Your task to perform on an android device: Add "dell xps" to the cart on newegg, then select checkout. Image 0: 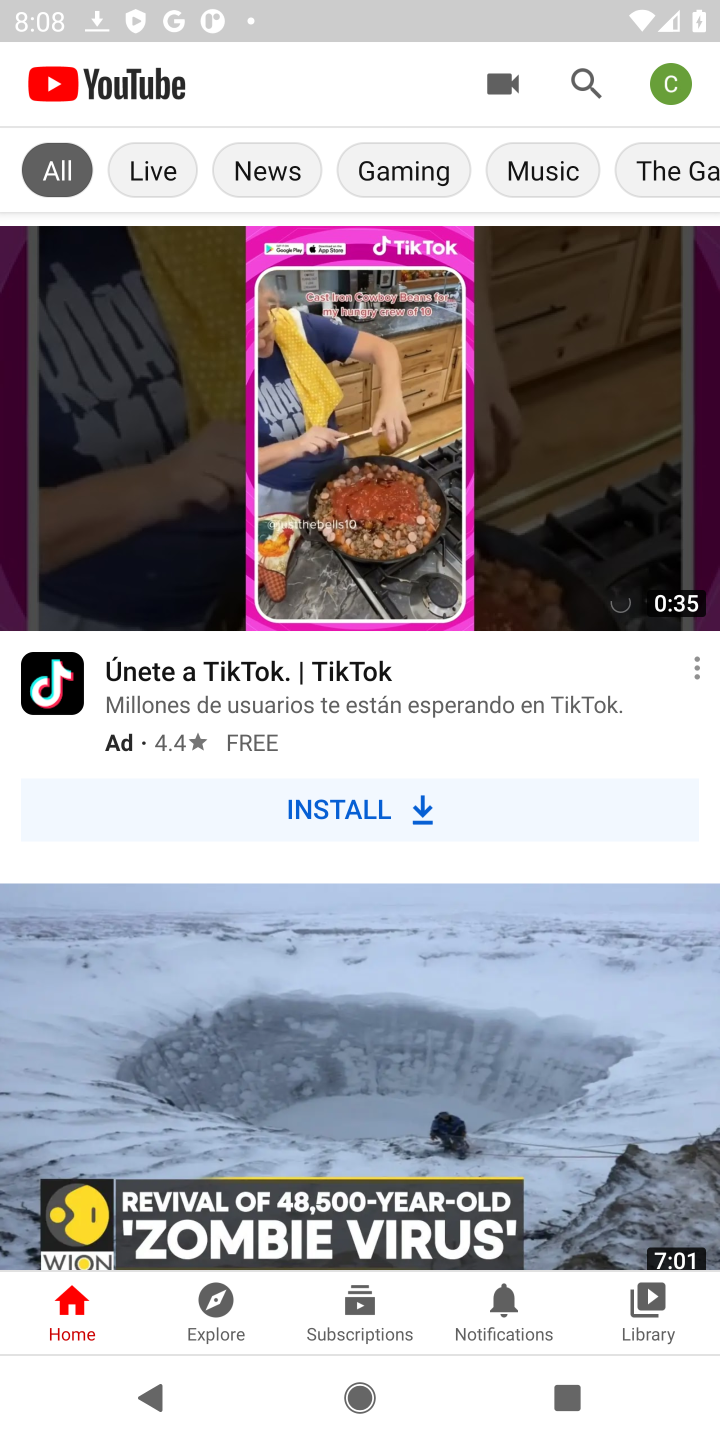
Step 0: press home button
Your task to perform on an android device: Add "dell xps" to the cart on newegg, then select checkout. Image 1: 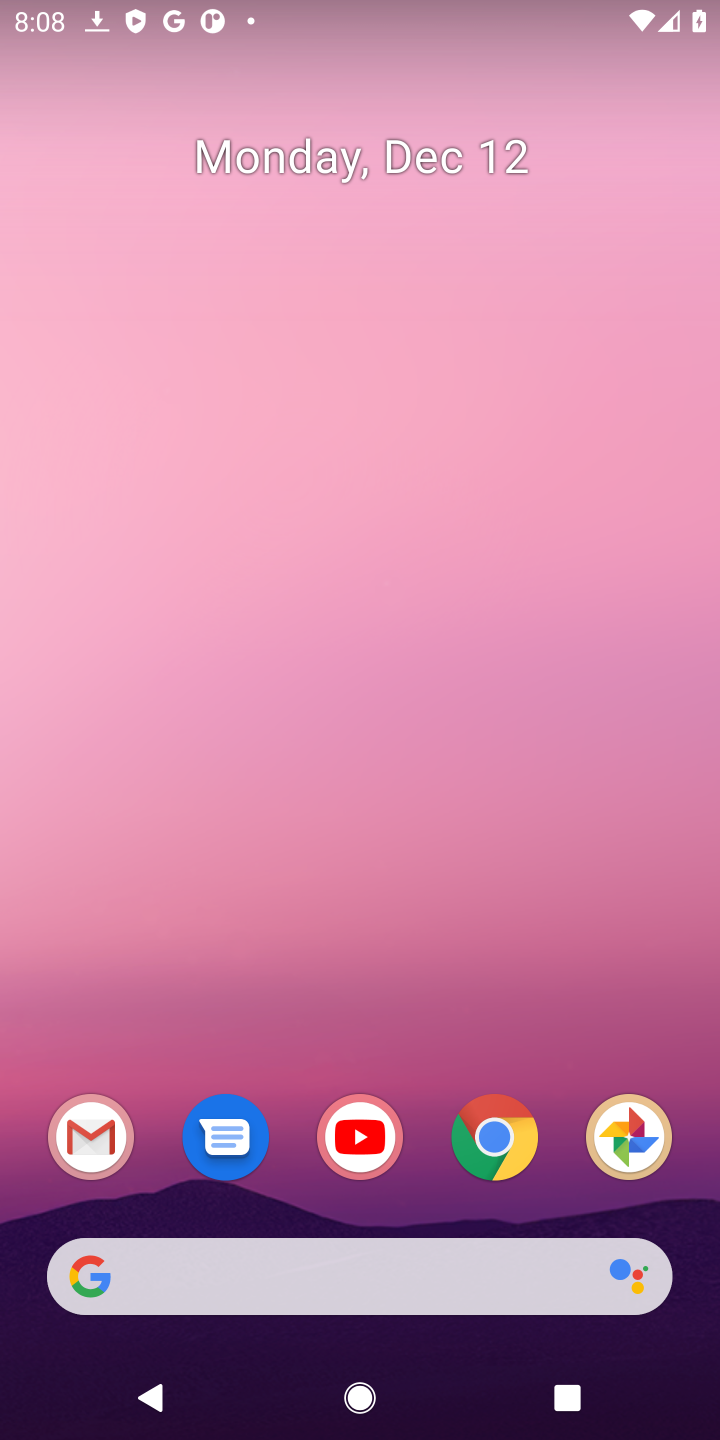
Step 1: click (509, 1149)
Your task to perform on an android device: Add "dell xps" to the cart on newegg, then select checkout. Image 2: 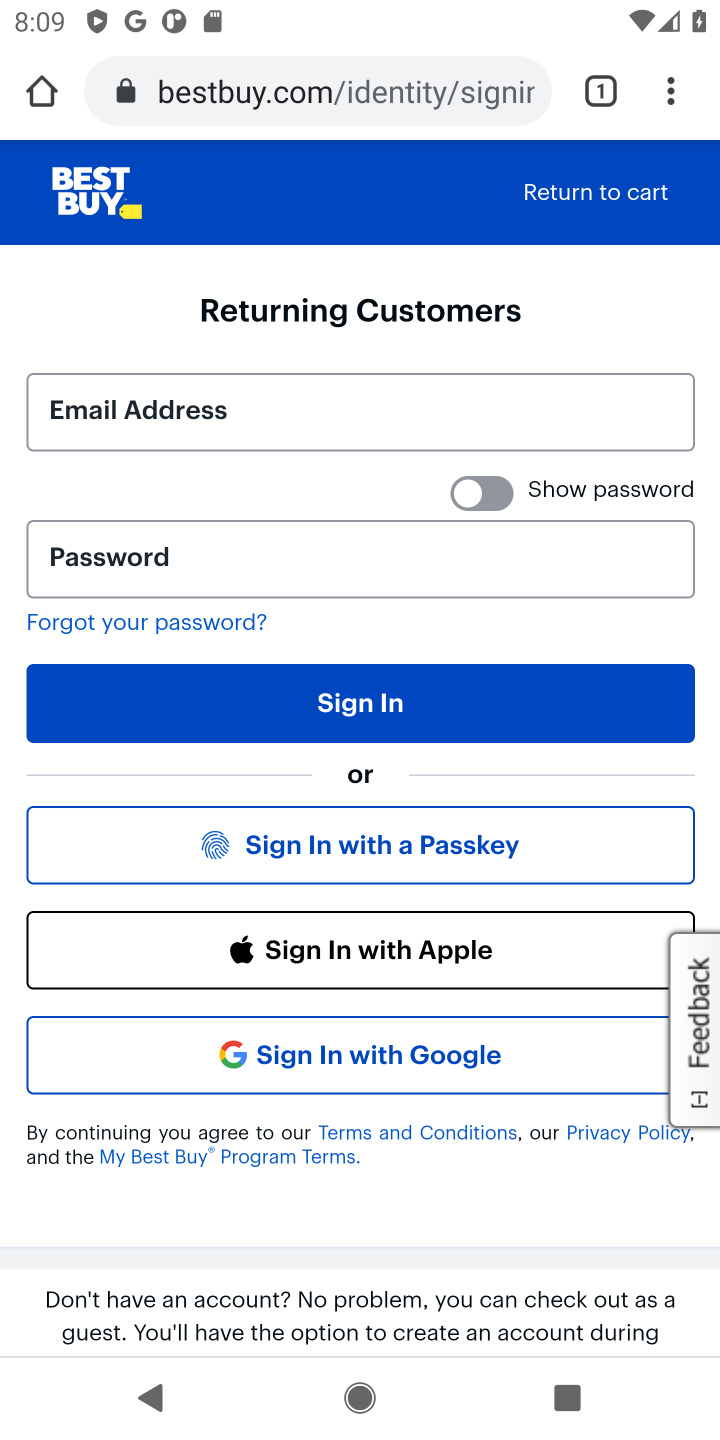
Step 2: click (386, 84)
Your task to perform on an android device: Add "dell xps" to the cart on newegg, then select checkout. Image 3: 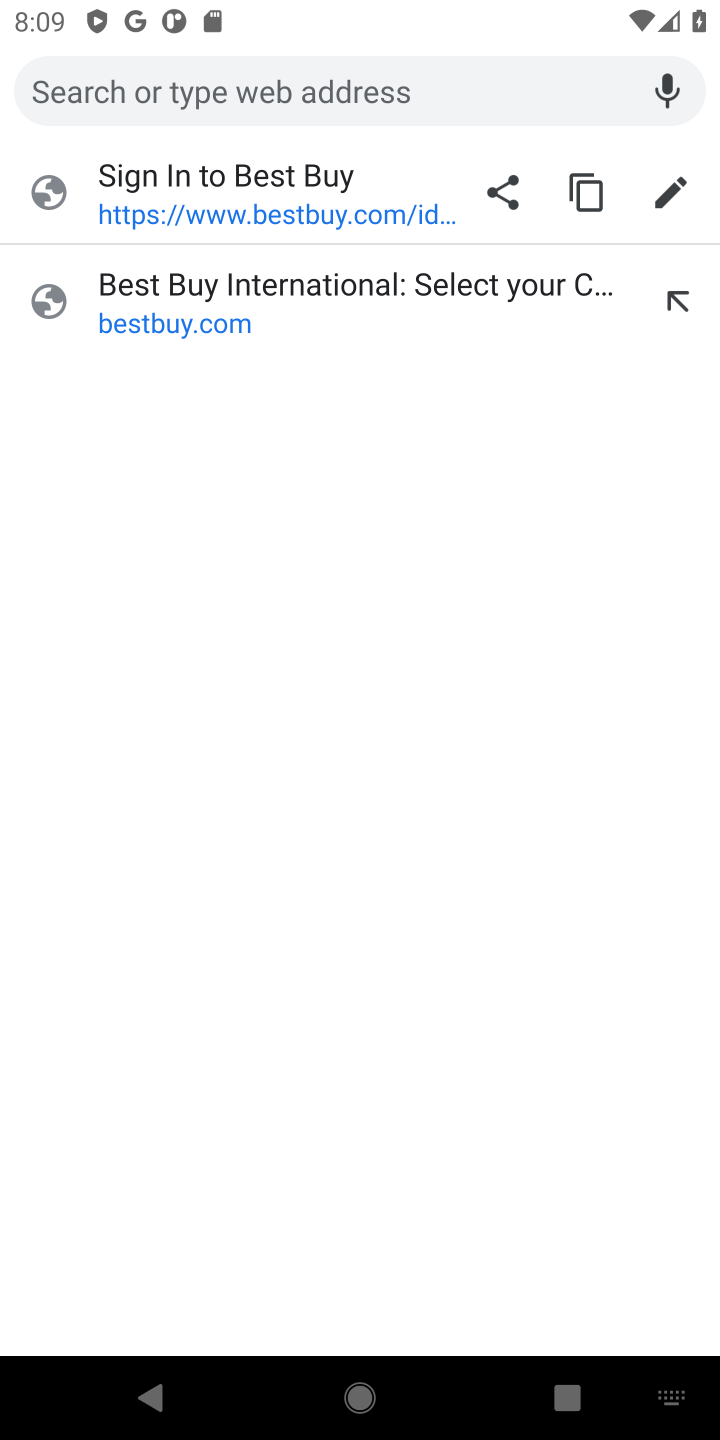
Step 3: type "newegg"
Your task to perform on an android device: Add "dell xps" to the cart on newegg, then select checkout. Image 4: 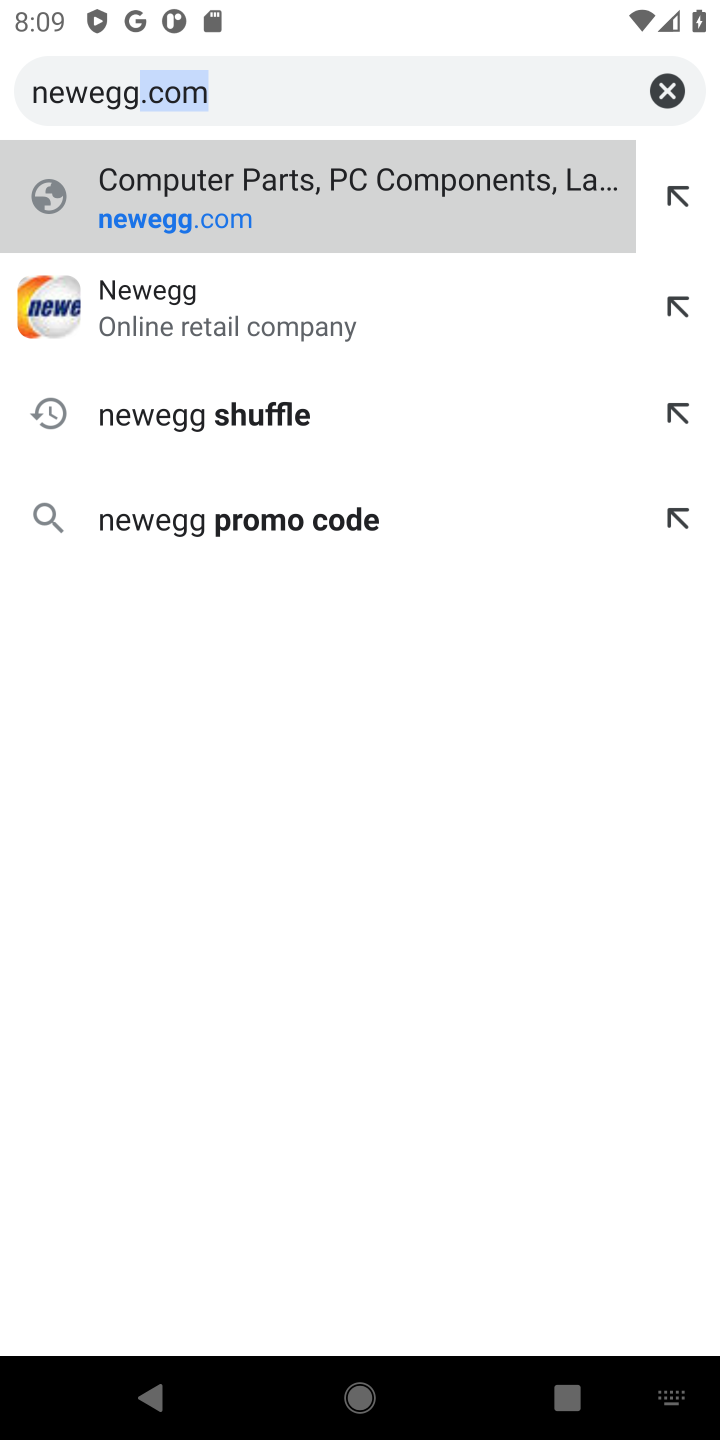
Step 4: click (223, 208)
Your task to perform on an android device: Add "dell xps" to the cart on newegg, then select checkout. Image 5: 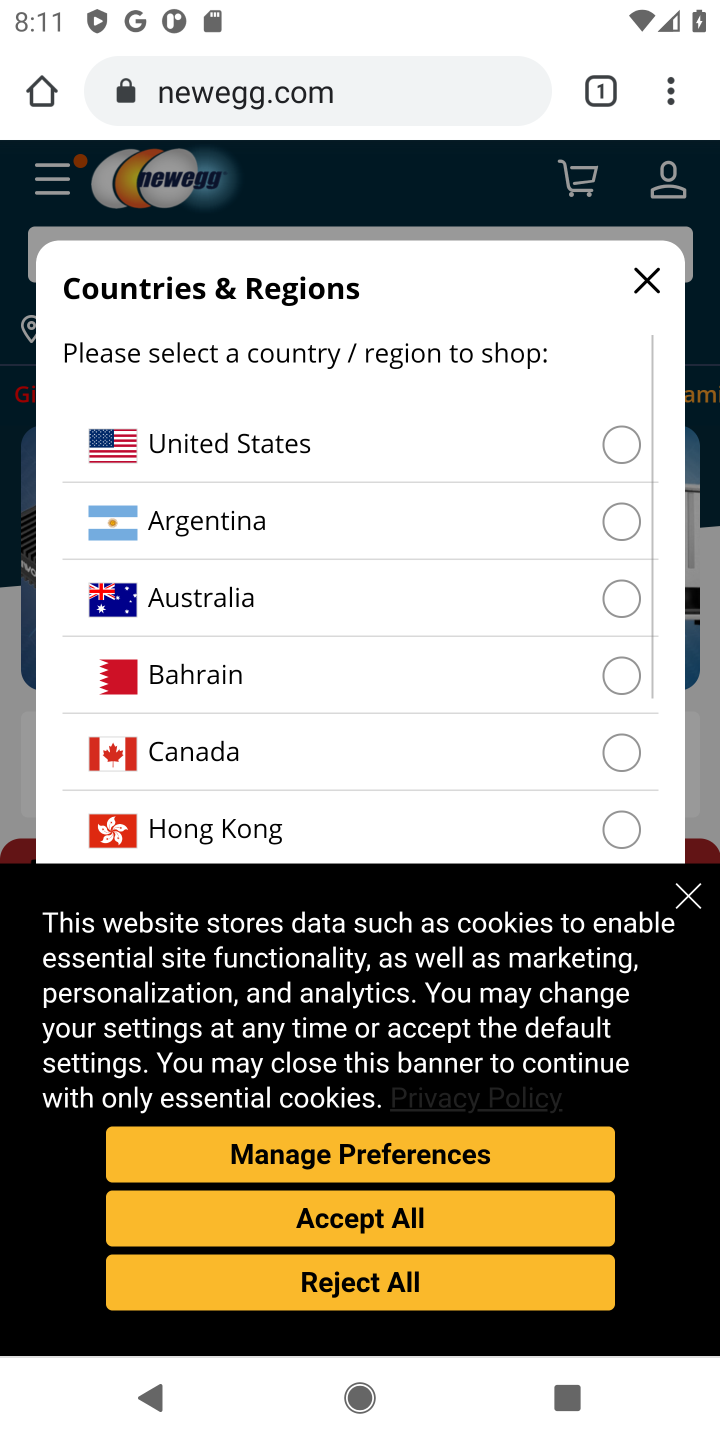
Step 5: click (416, 1220)
Your task to perform on an android device: Add "dell xps" to the cart on newegg, then select checkout. Image 6: 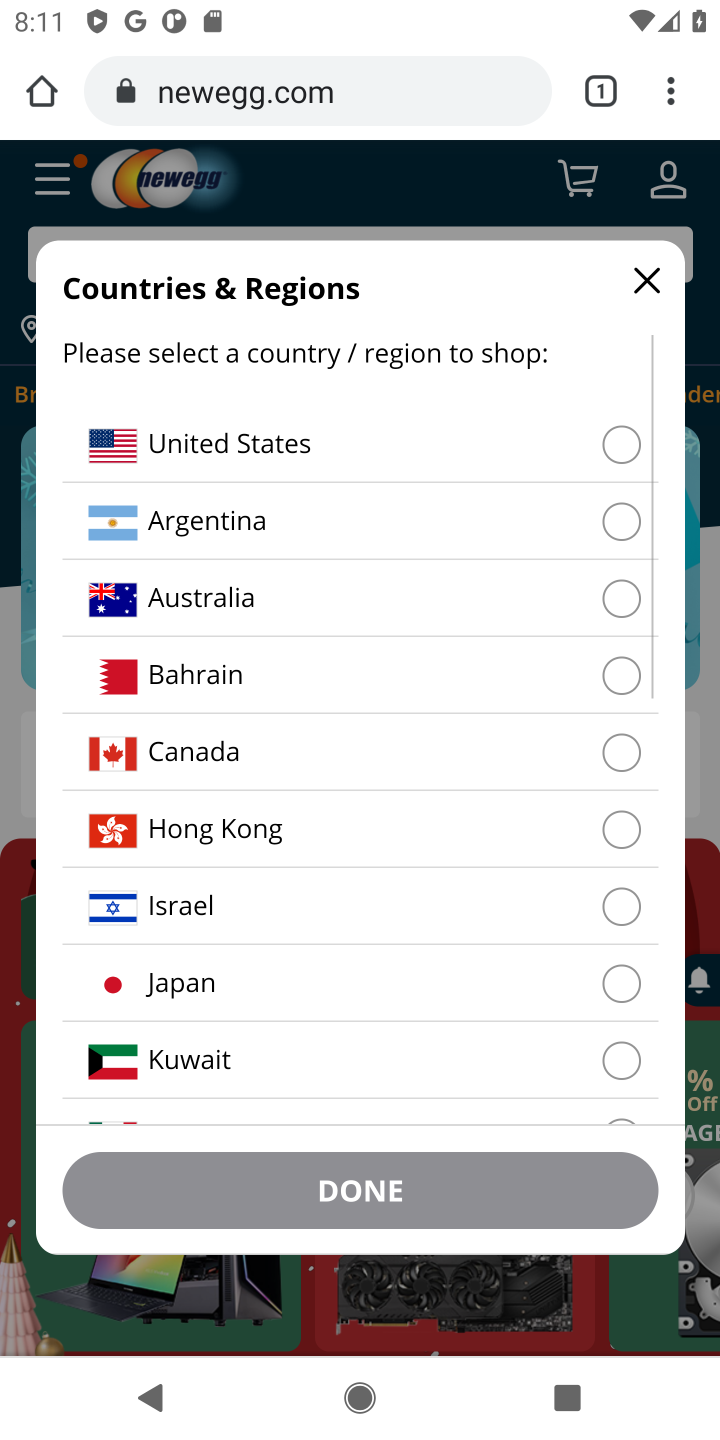
Step 6: click (429, 448)
Your task to perform on an android device: Add "dell xps" to the cart on newegg, then select checkout. Image 7: 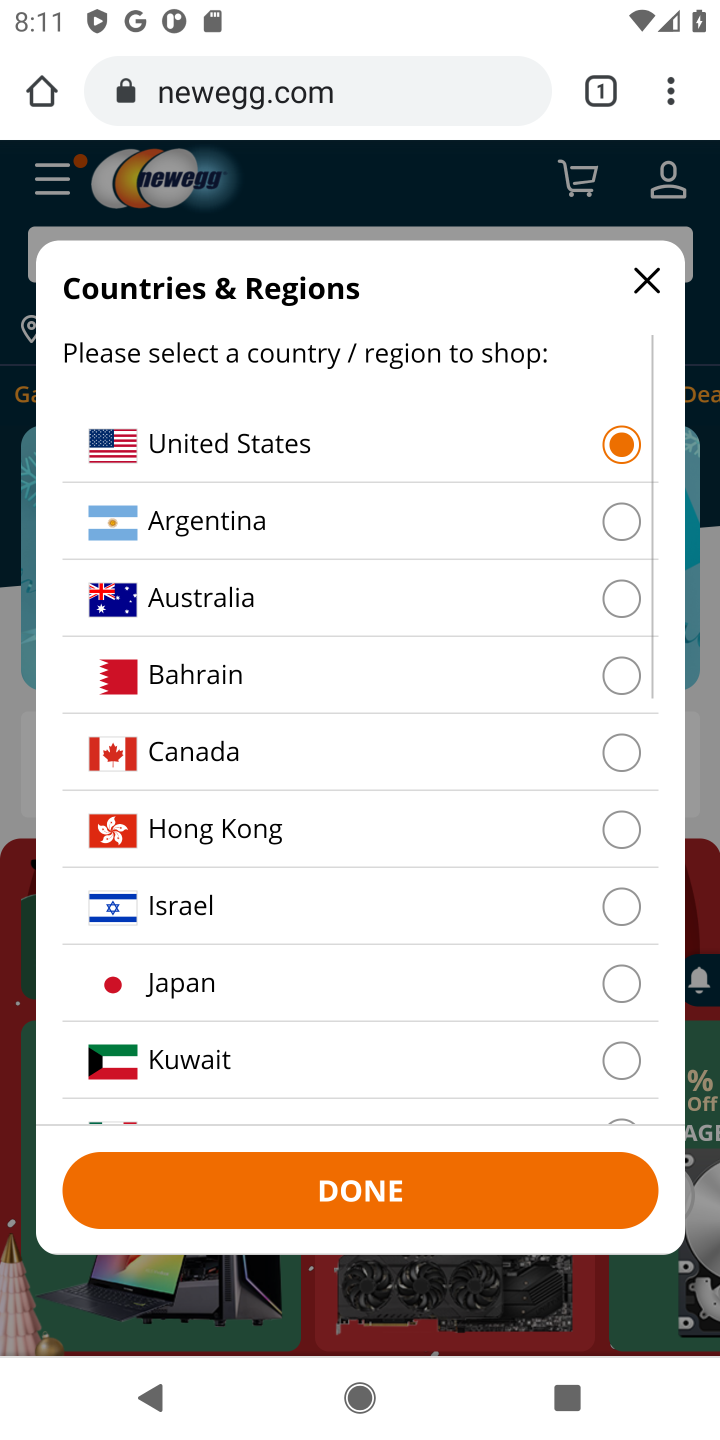
Step 7: click (464, 1205)
Your task to perform on an android device: Add "dell xps" to the cart on newegg, then select checkout. Image 8: 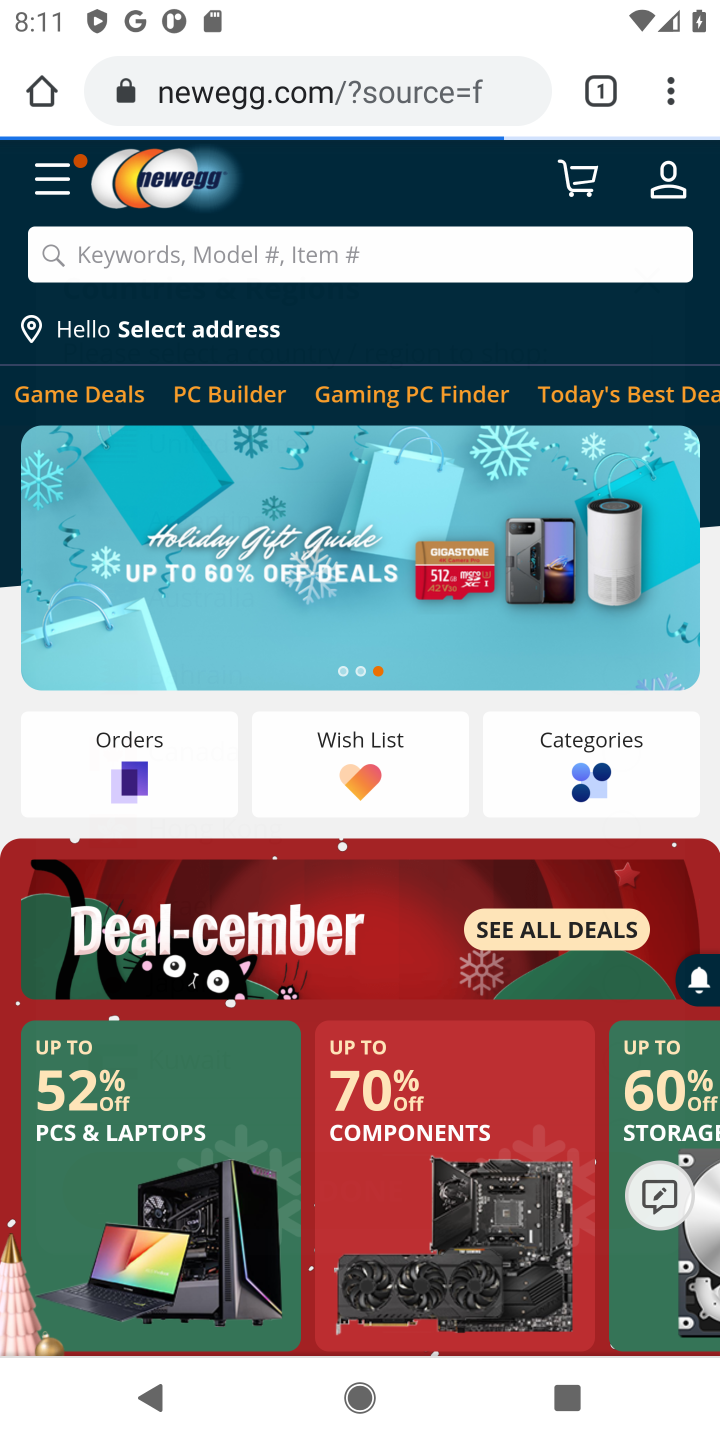
Step 8: click (530, 246)
Your task to perform on an android device: Add "dell xps" to the cart on newegg, then select checkout. Image 9: 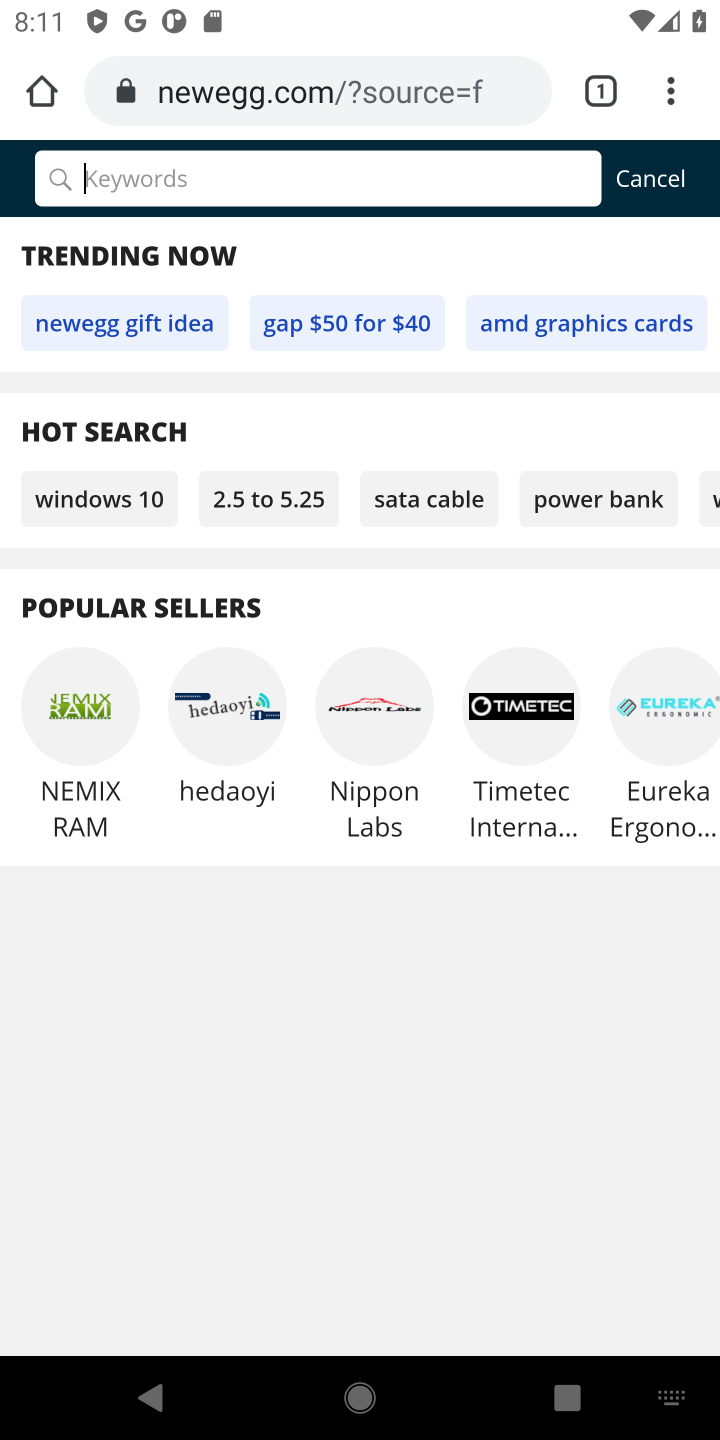
Step 9: type "dell xps"
Your task to perform on an android device: Add "dell xps" to the cart on newegg, then select checkout. Image 10: 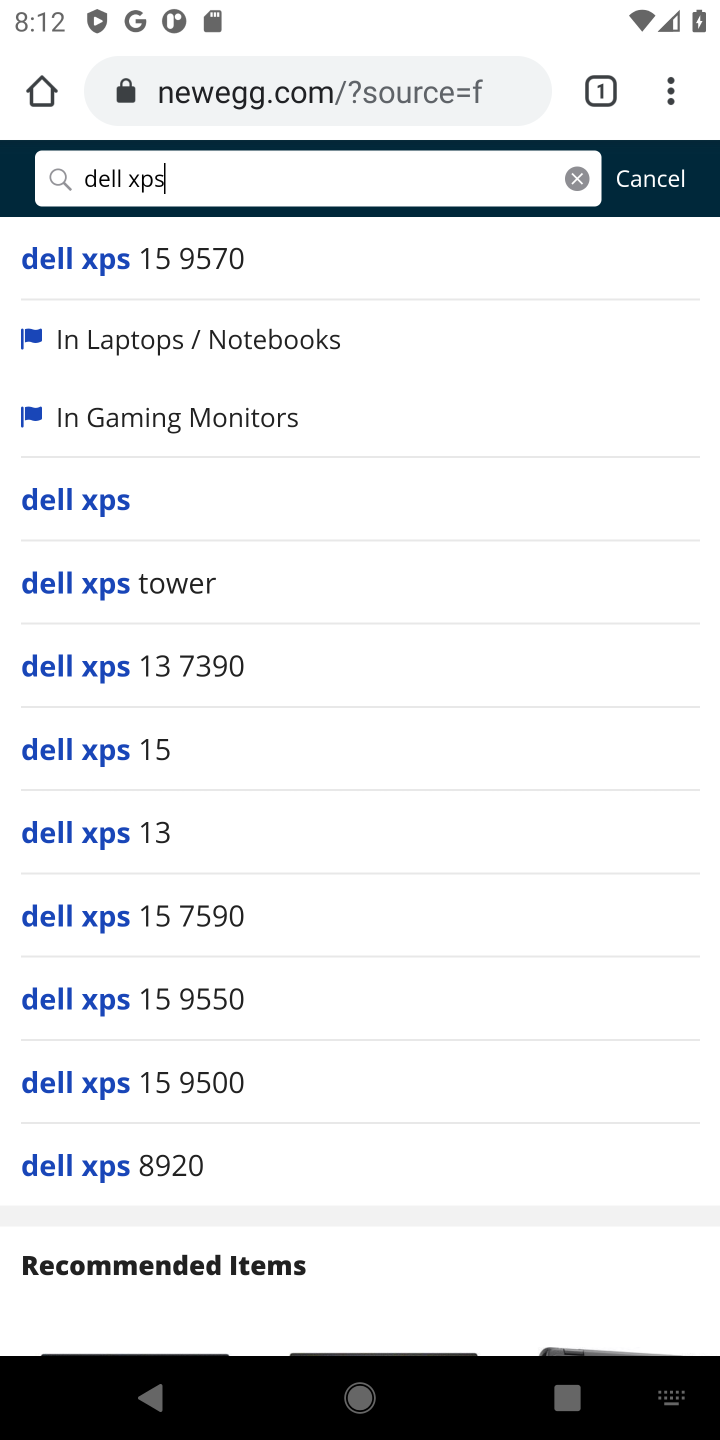
Step 10: click (151, 256)
Your task to perform on an android device: Add "dell xps" to the cart on newegg, then select checkout. Image 11: 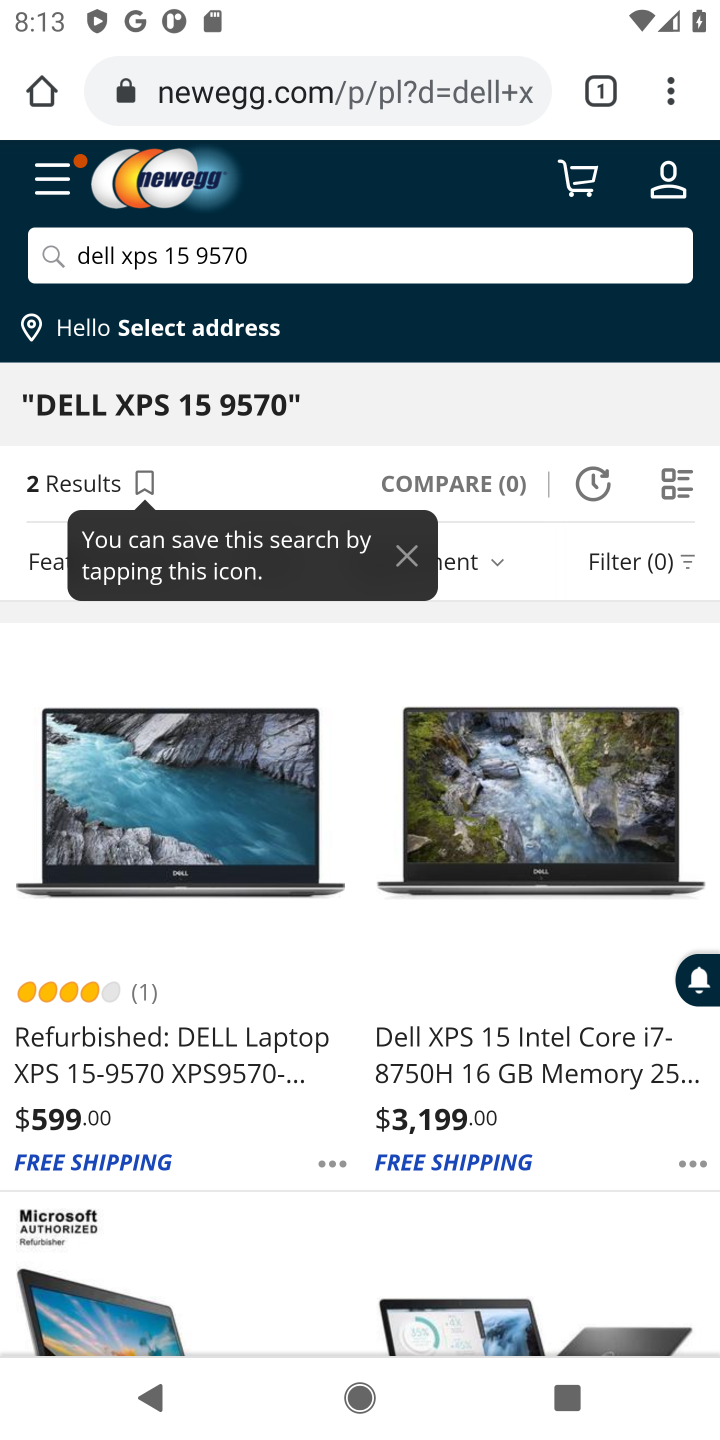
Step 11: click (193, 856)
Your task to perform on an android device: Add "dell xps" to the cart on newegg, then select checkout. Image 12: 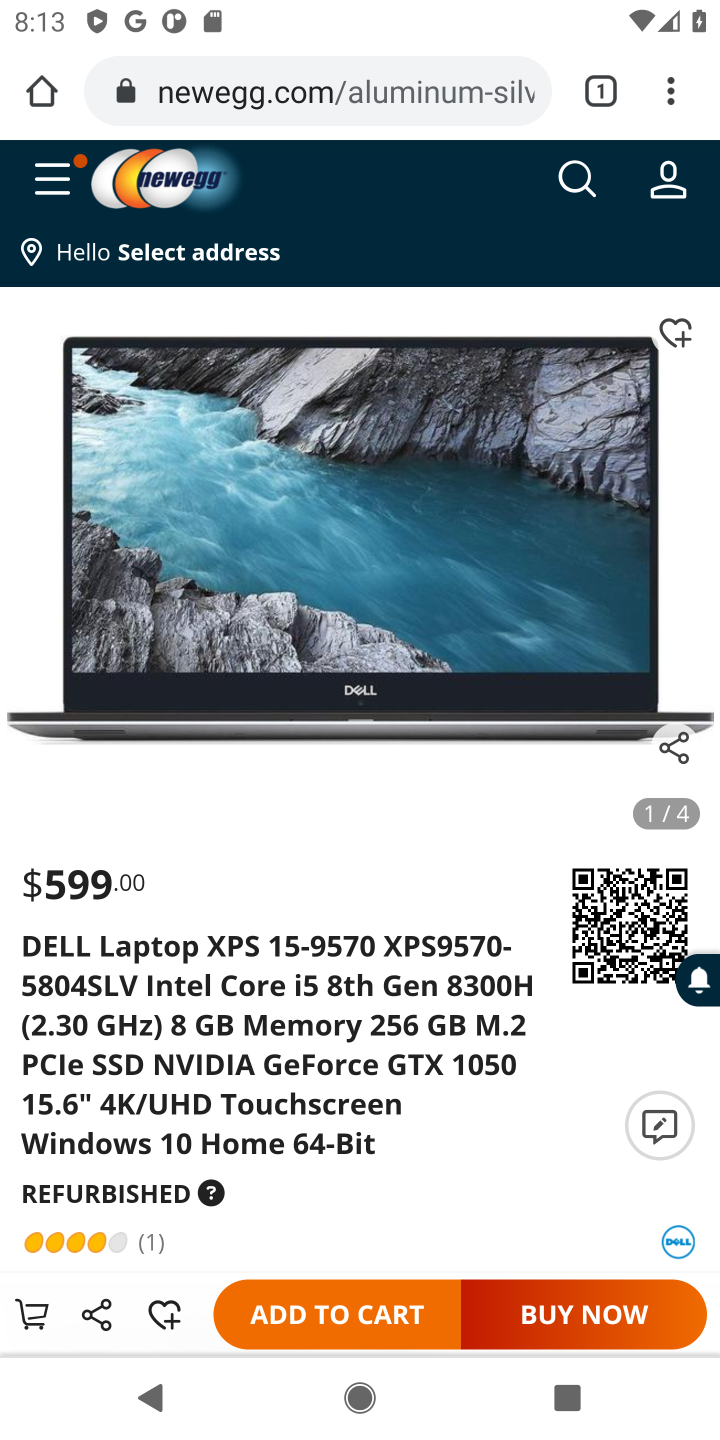
Step 12: click (389, 1315)
Your task to perform on an android device: Add "dell xps" to the cart on newegg, then select checkout. Image 13: 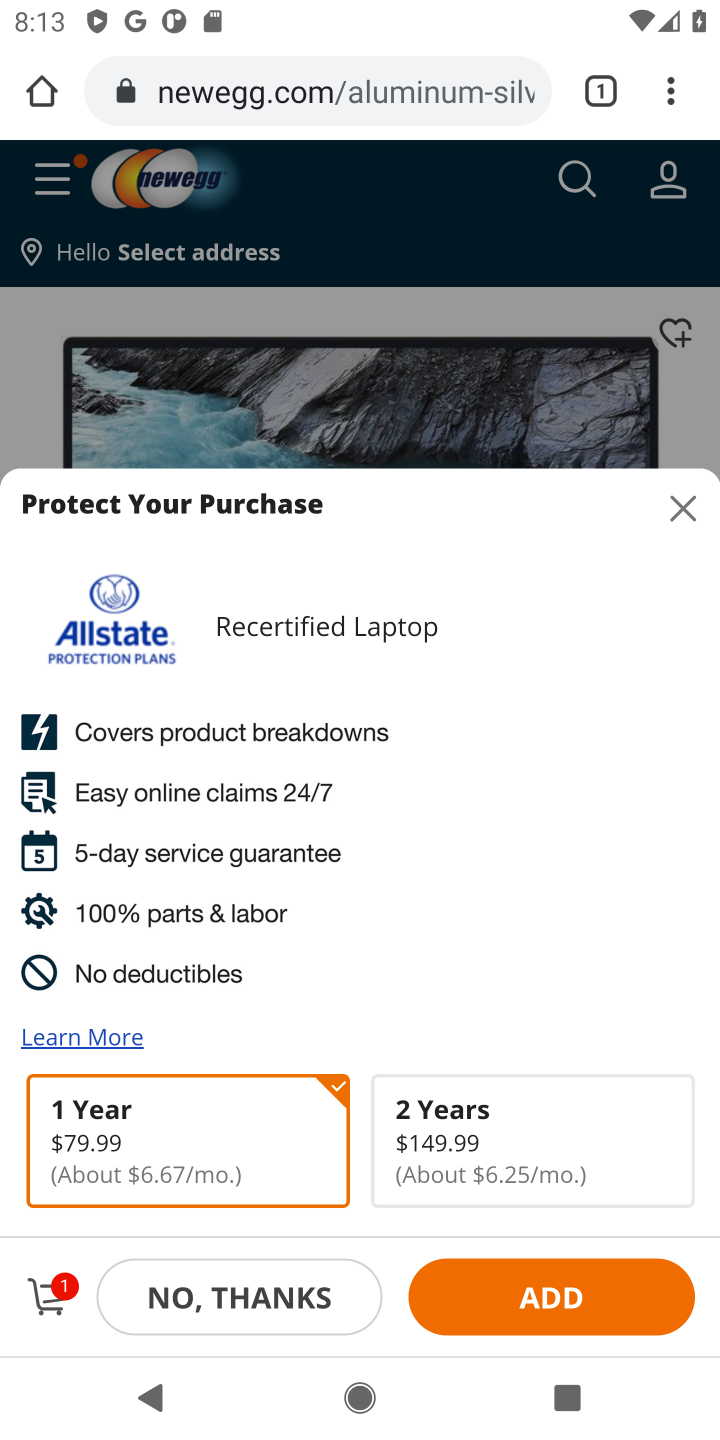
Step 13: click (185, 1300)
Your task to perform on an android device: Add "dell xps" to the cart on newegg, then select checkout. Image 14: 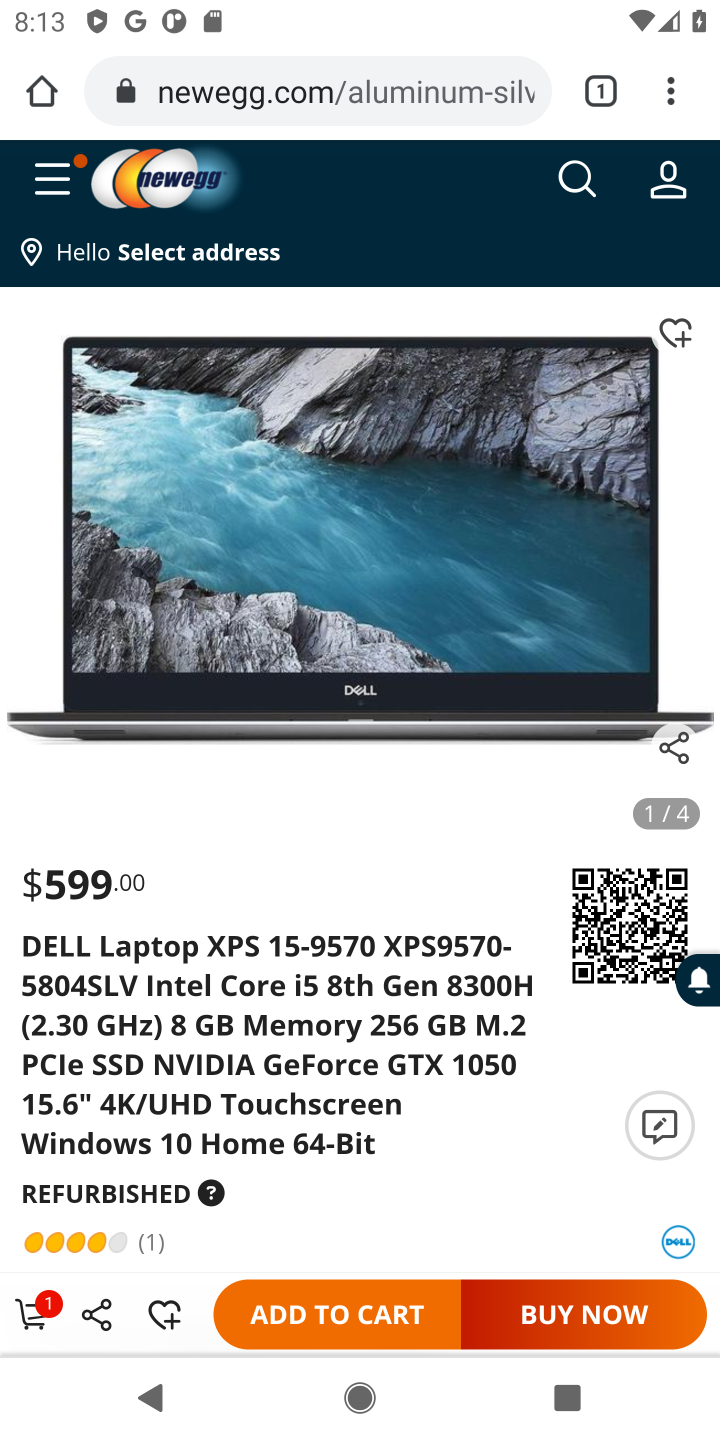
Step 14: click (35, 1316)
Your task to perform on an android device: Add "dell xps" to the cart on newegg, then select checkout. Image 15: 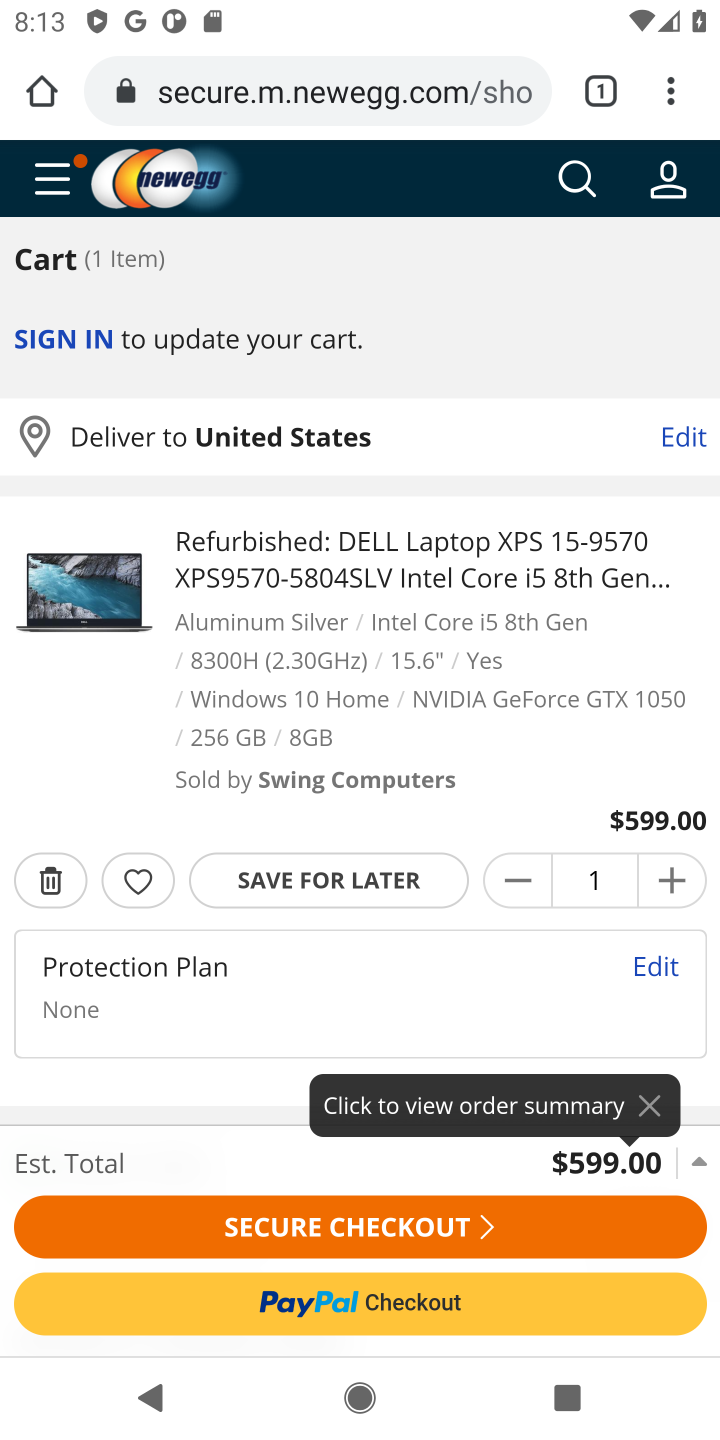
Step 15: click (373, 1230)
Your task to perform on an android device: Add "dell xps" to the cart on newegg, then select checkout. Image 16: 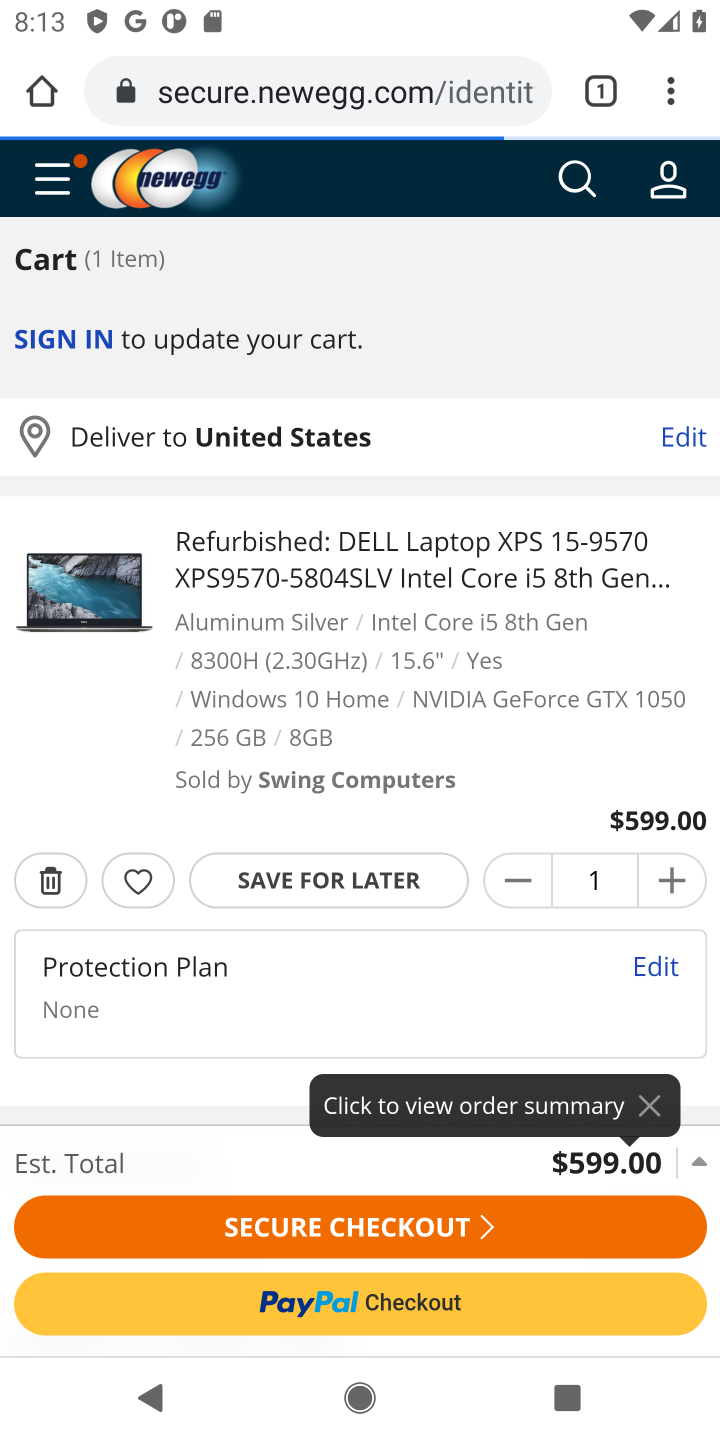
Step 16: task complete